Your task to perform on an android device: Open ESPN.com Image 0: 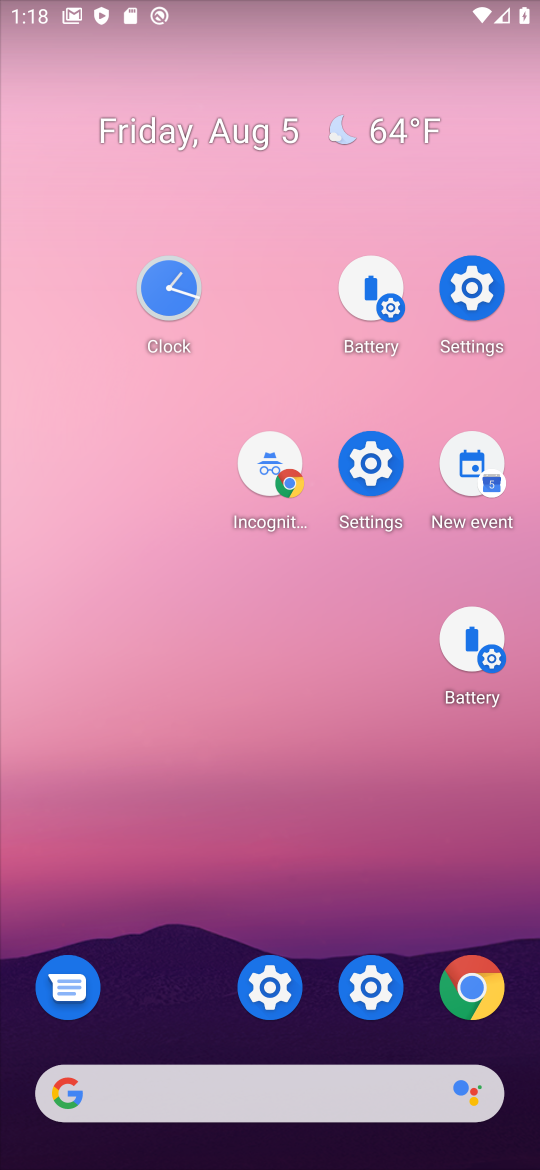
Step 0: click (506, 985)
Your task to perform on an android device: Open ESPN.com Image 1: 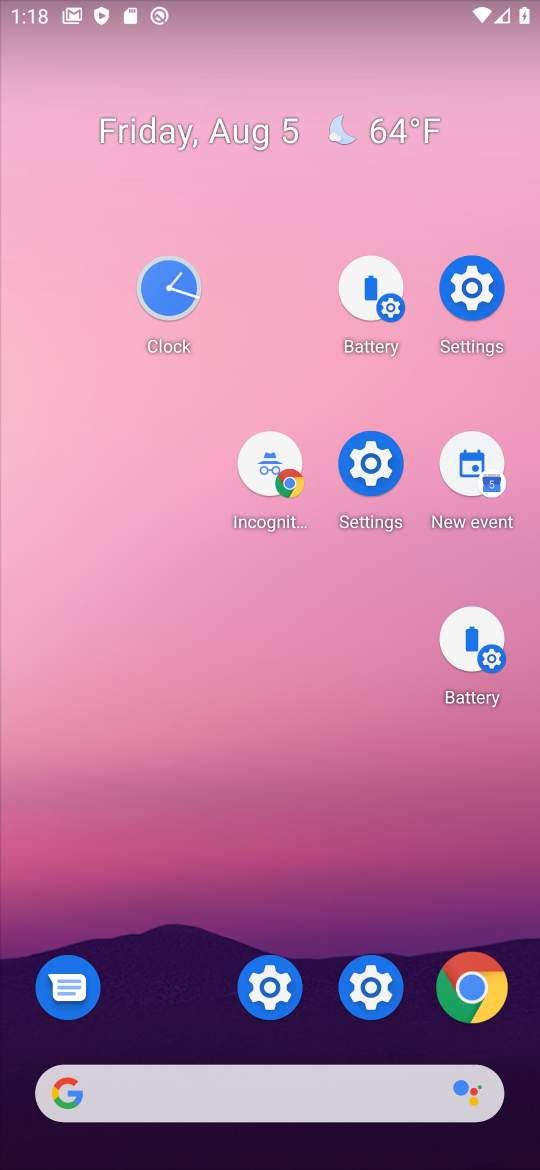
Step 1: click (463, 988)
Your task to perform on an android device: Open ESPN.com Image 2: 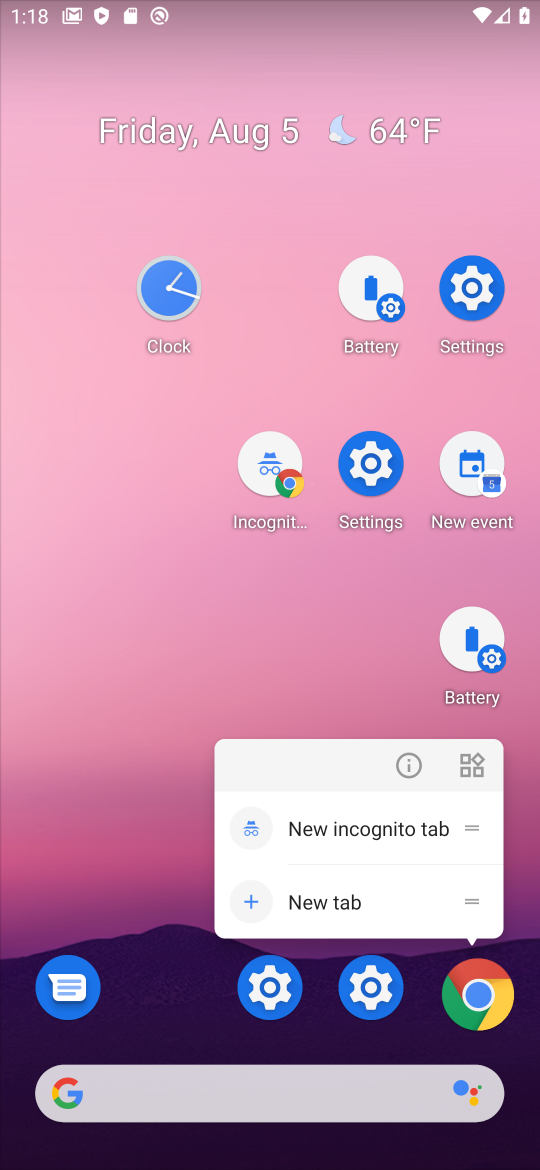
Step 2: click (470, 997)
Your task to perform on an android device: Open ESPN.com Image 3: 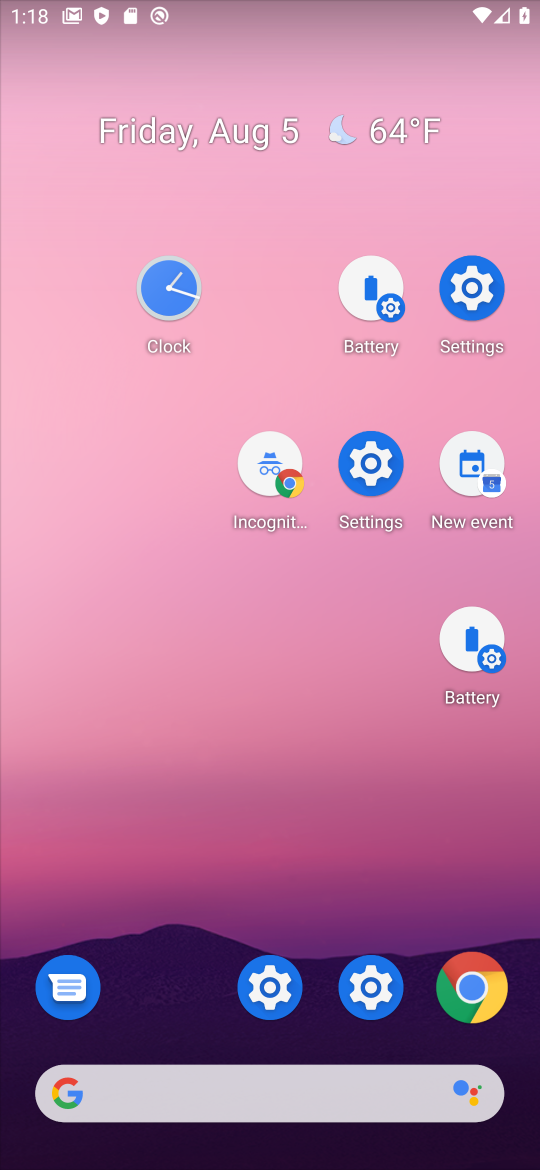
Step 3: click (360, 898)
Your task to perform on an android device: Open ESPN.com Image 4: 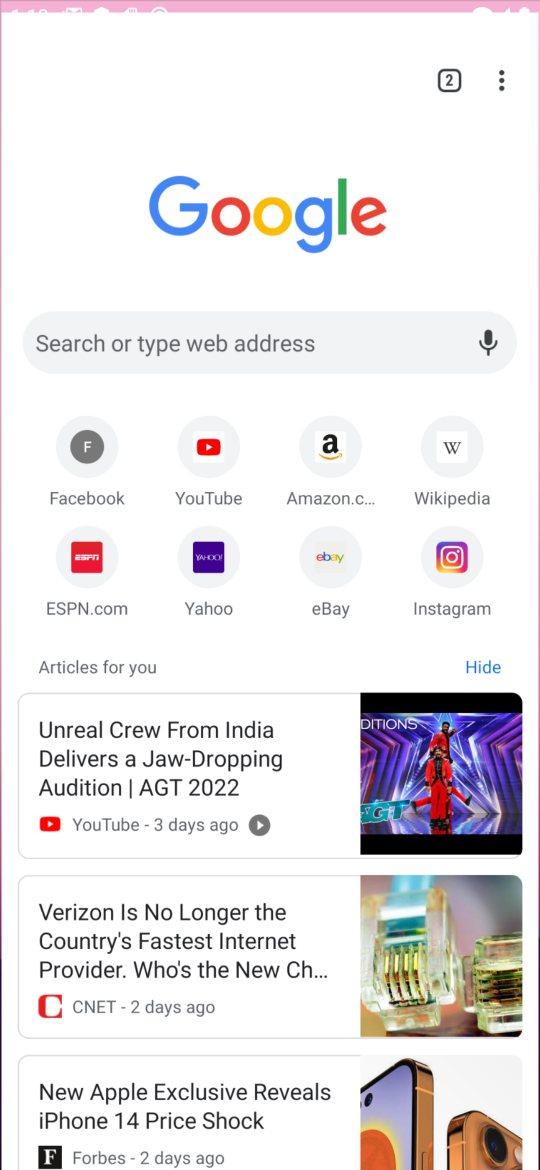
Step 4: click (359, 899)
Your task to perform on an android device: Open ESPN.com Image 5: 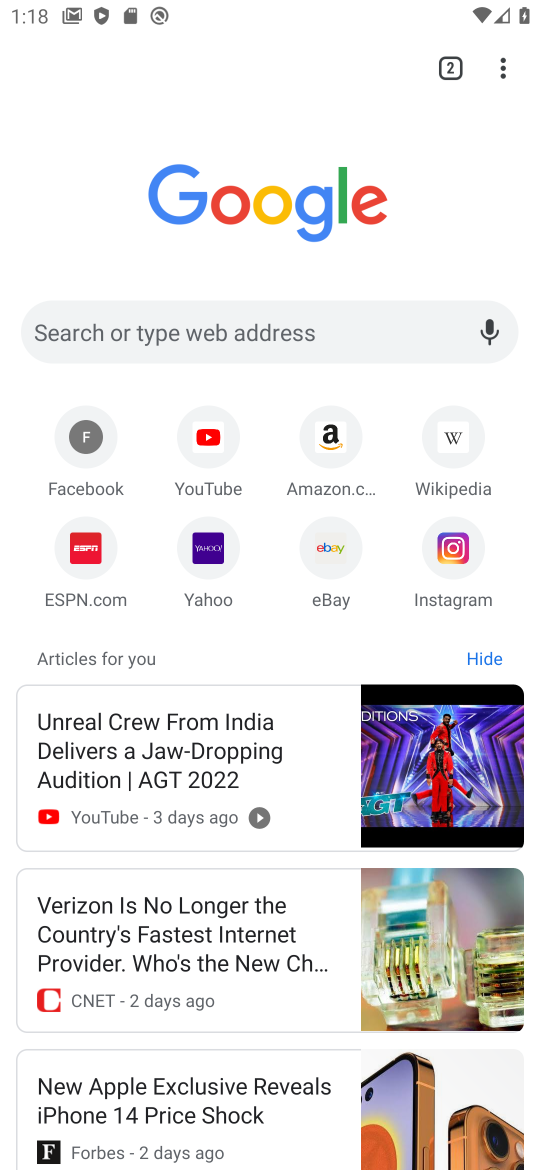
Step 5: click (81, 538)
Your task to perform on an android device: Open ESPN.com Image 6: 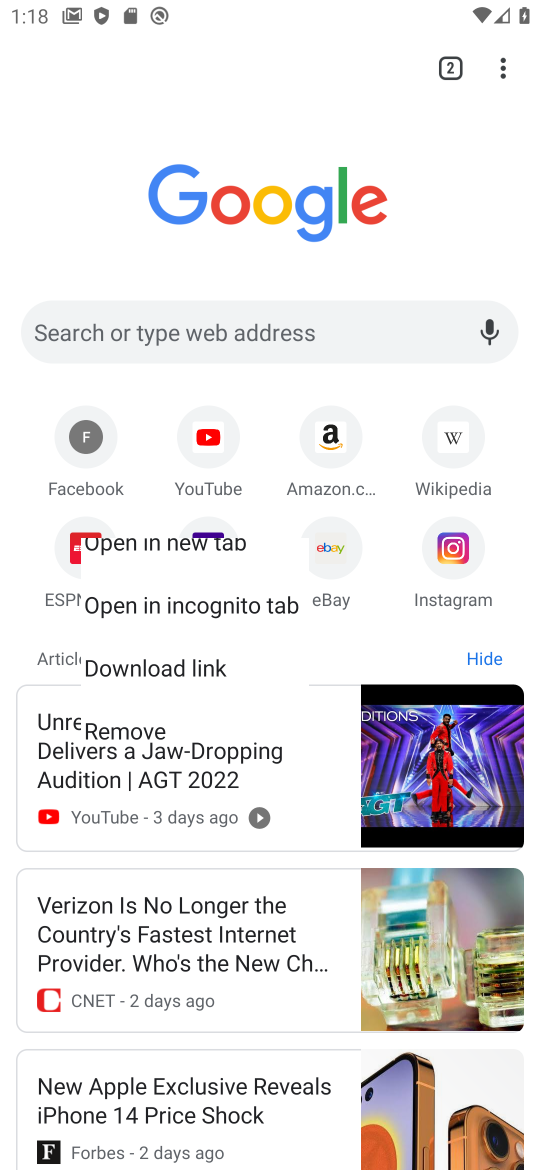
Step 6: click (91, 556)
Your task to perform on an android device: Open ESPN.com Image 7: 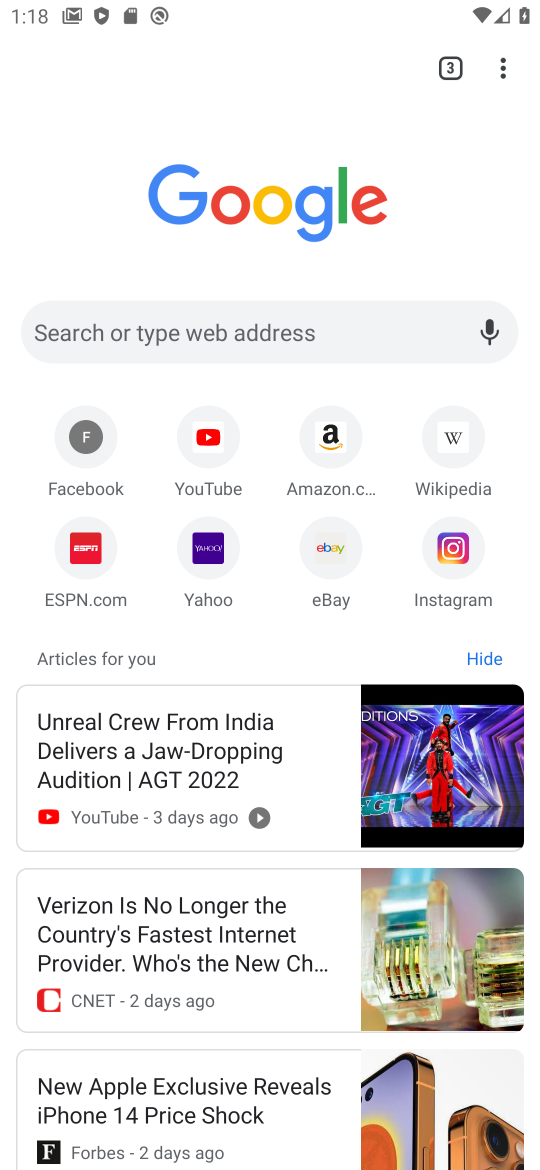
Step 7: click (67, 541)
Your task to perform on an android device: Open ESPN.com Image 8: 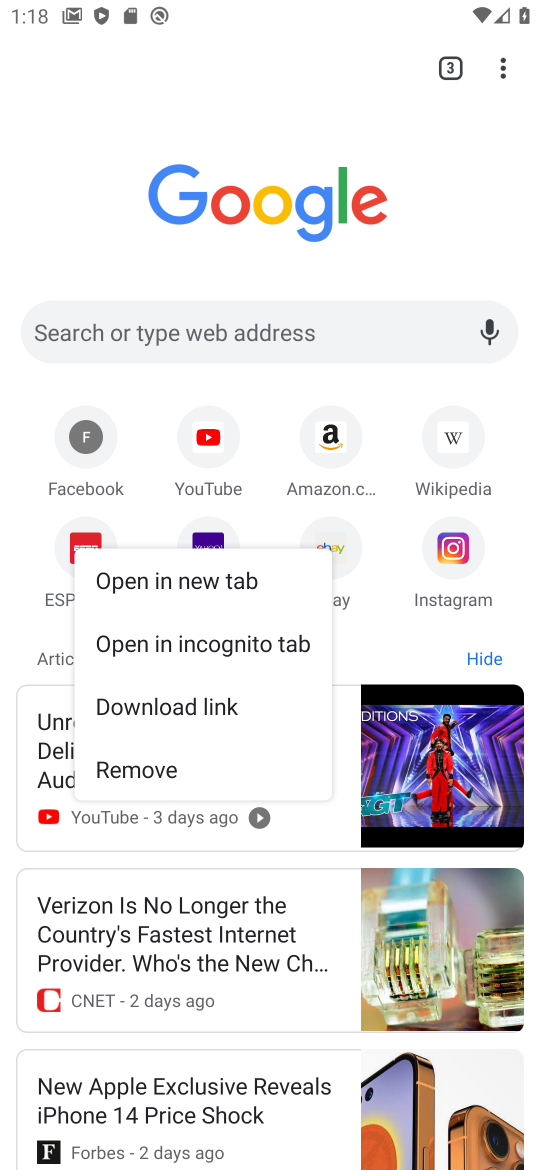
Step 8: click (116, 575)
Your task to perform on an android device: Open ESPN.com Image 9: 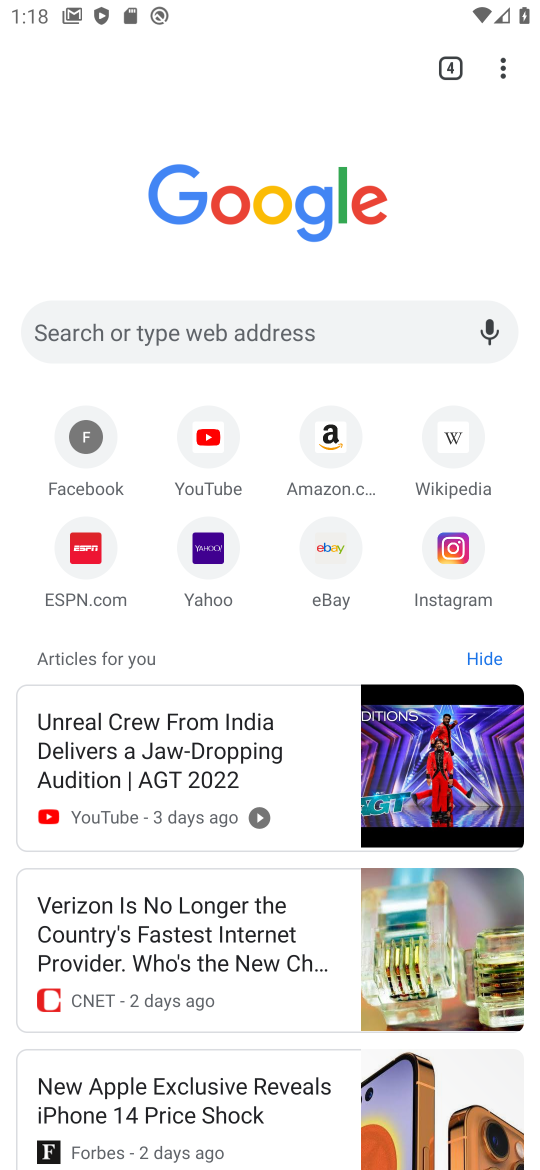
Step 9: click (82, 539)
Your task to perform on an android device: Open ESPN.com Image 10: 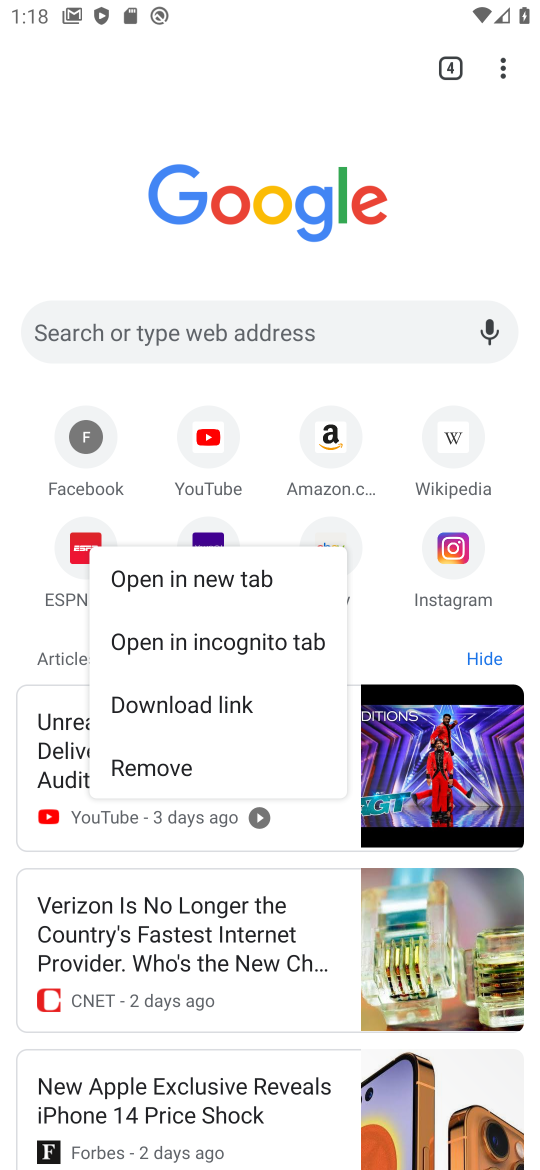
Step 10: click (89, 566)
Your task to perform on an android device: Open ESPN.com Image 11: 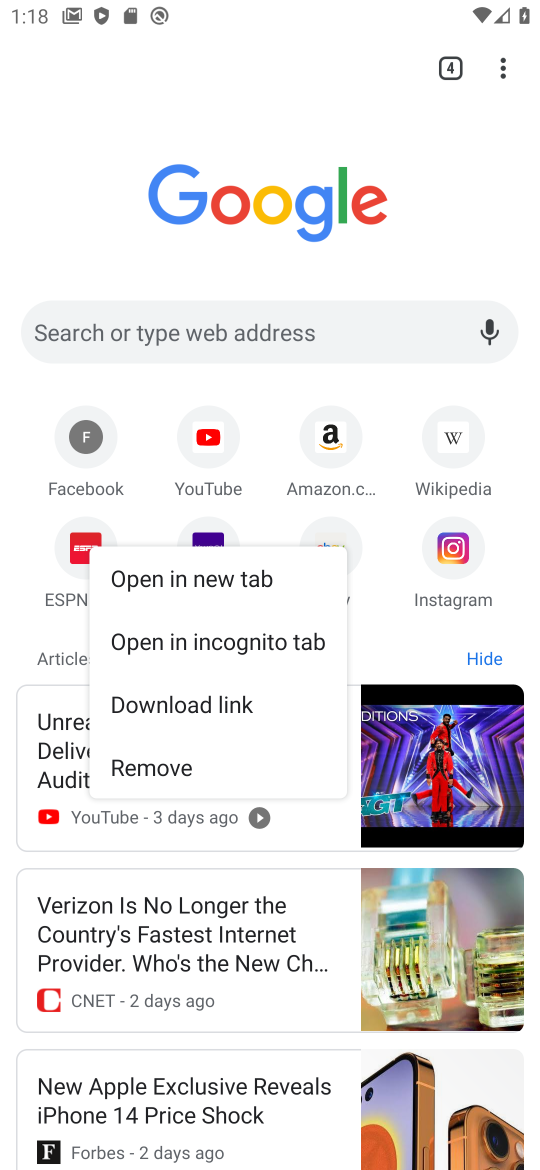
Step 11: click (81, 540)
Your task to perform on an android device: Open ESPN.com Image 12: 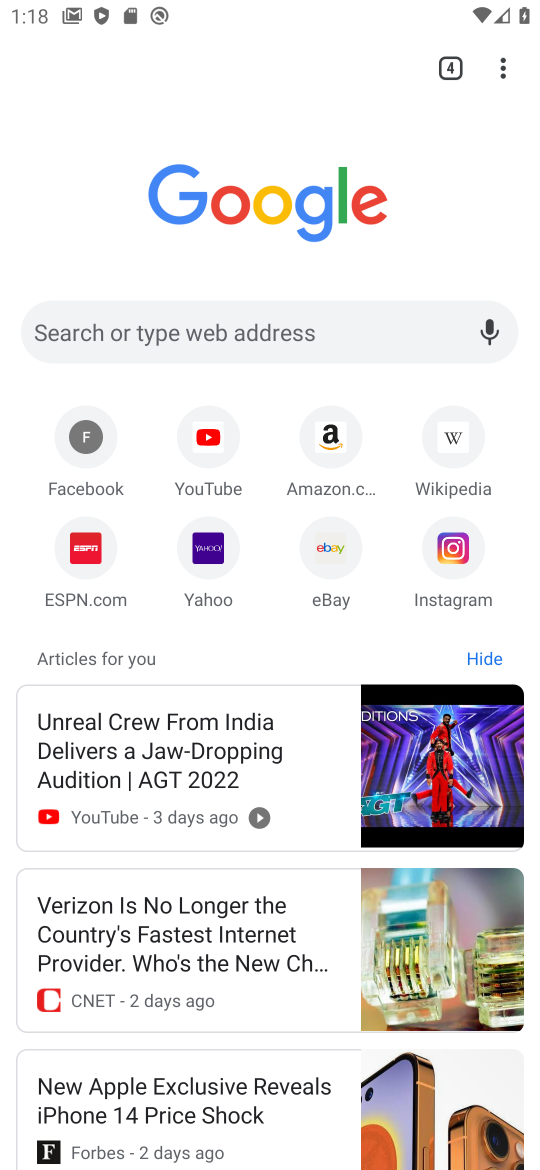
Step 12: drag from (91, 550) to (219, 598)
Your task to perform on an android device: Open ESPN.com Image 13: 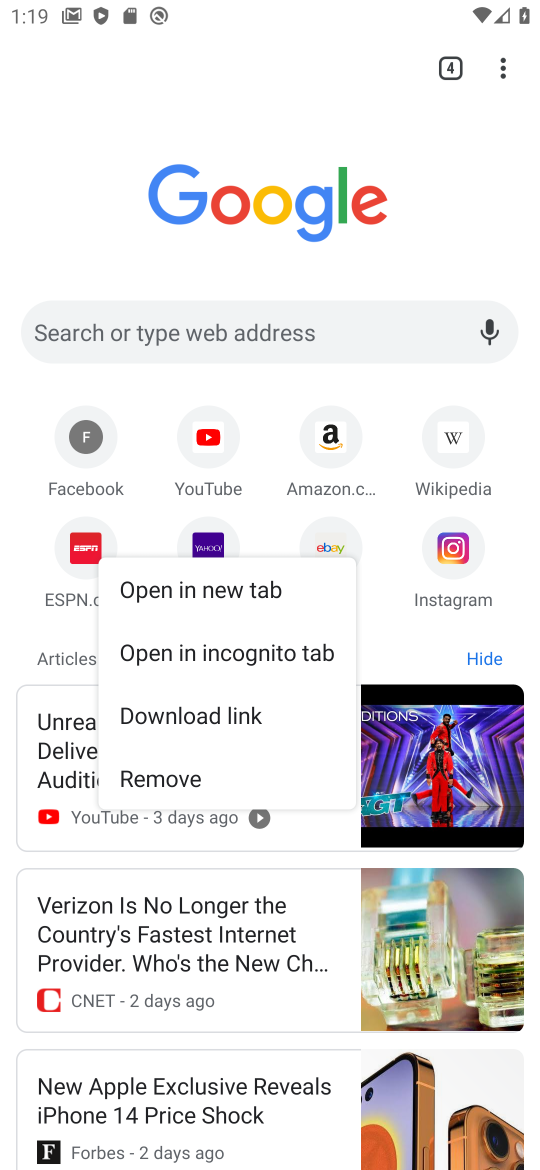
Step 13: click (222, 596)
Your task to perform on an android device: Open ESPN.com Image 14: 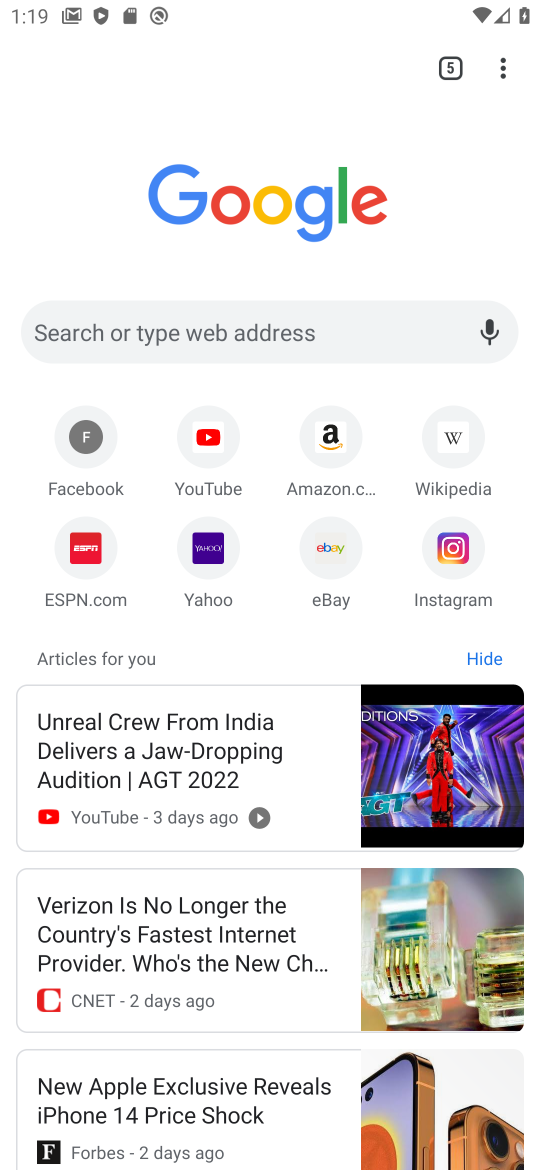
Step 14: task complete